Your task to perform on an android device: Open Wikipedia Image 0: 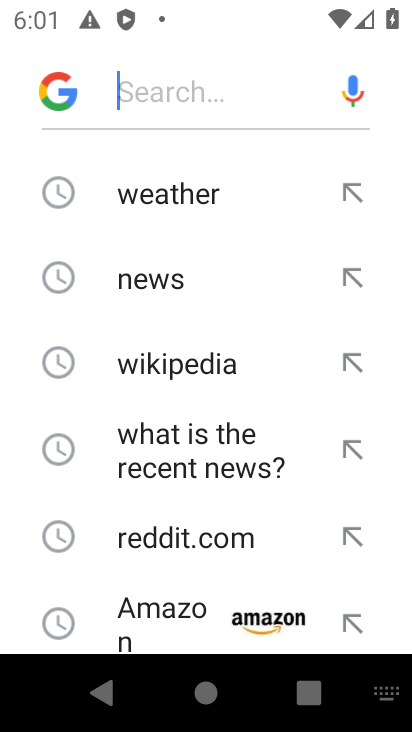
Step 0: press home button
Your task to perform on an android device: Open Wikipedia Image 1: 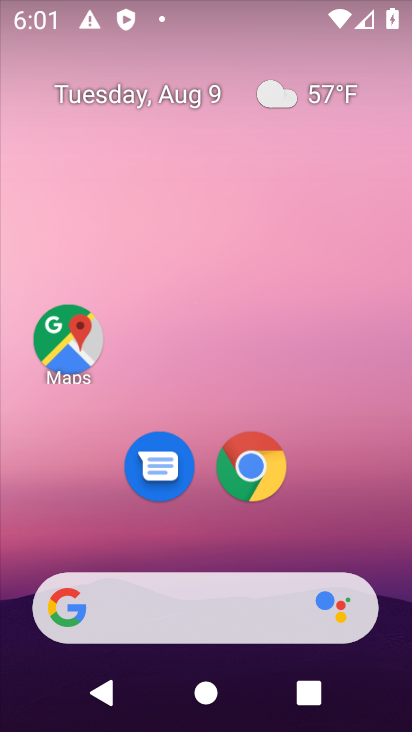
Step 1: click (244, 470)
Your task to perform on an android device: Open Wikipedia Image 2: 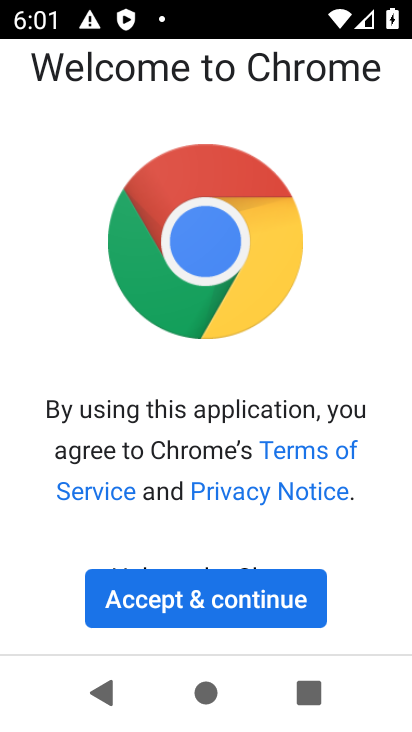
Step 2: click (217, 598)
Your task to perform on an android device: Open Wikipedia Image 3: 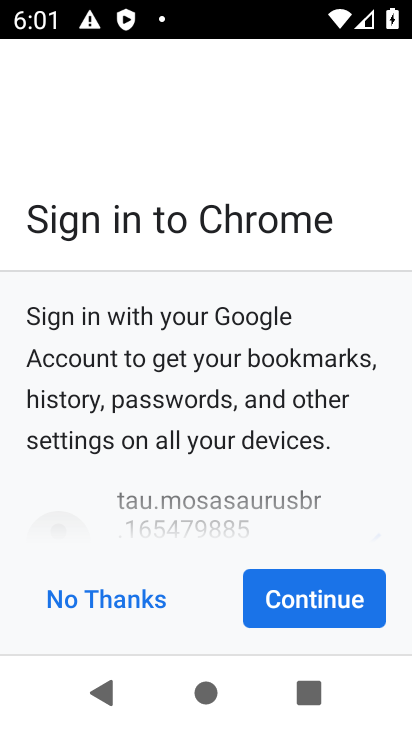
Step 3: click (362, 598)
Your task to perform on an android device: Open Wikipedia Image 4: 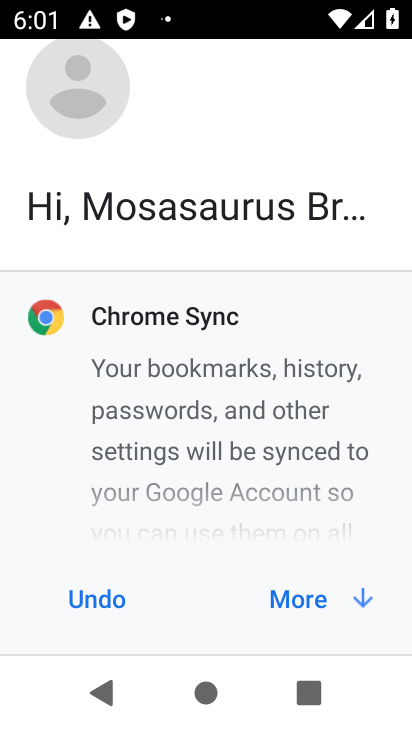
Step 4: click (301, 601)
Your task to perform on an android device: Open Wikipedia Image 5: 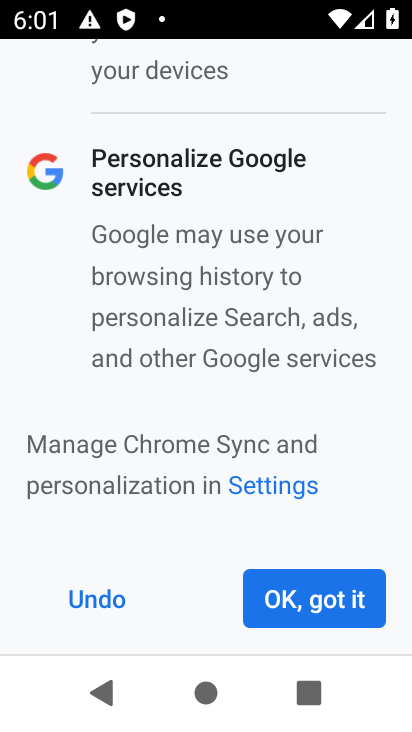
Step 5: click (330, 601)
Your task to perform on an android device: Open Wikipedia Image 6: 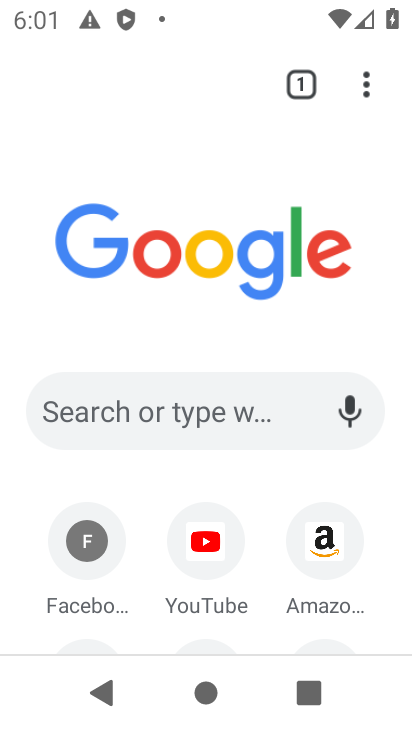
Step 6: drag from (245, 601) to (244, 320)
Your task to perform on an android device: Open Wikipedia Image 7: 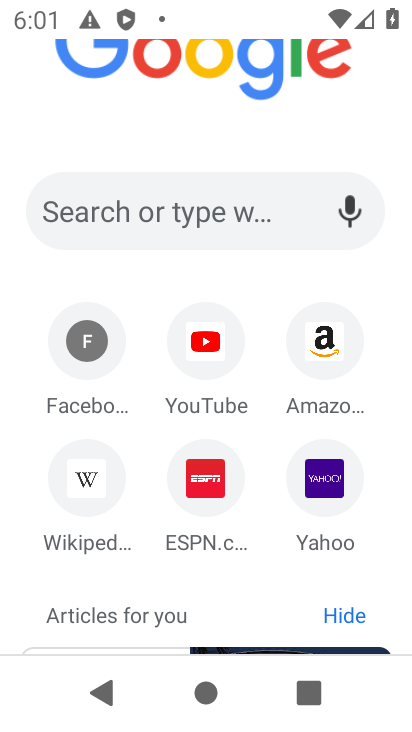
Step 7: click (93, 513)
Your task to perform on an android device: Open Wikipedia Image 8: 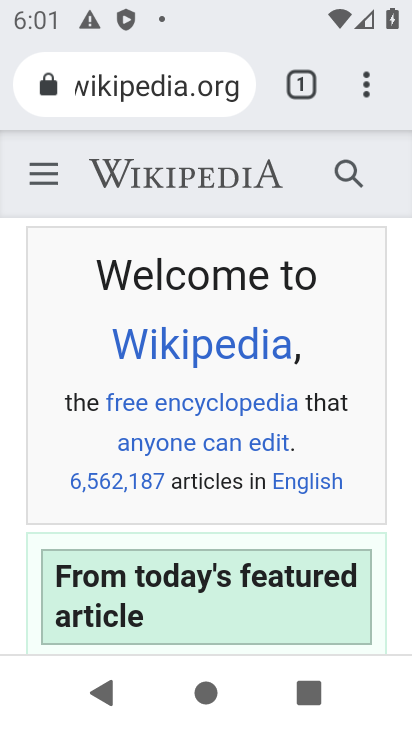
Step 8: task complete